Your task to perform on an android device: check battery use Image 0: 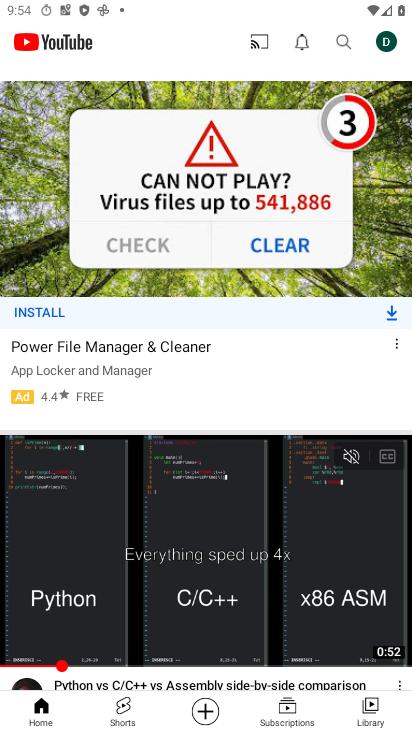
Step 0: press home button
Your task to perform on an android device: check battery use Image 1: 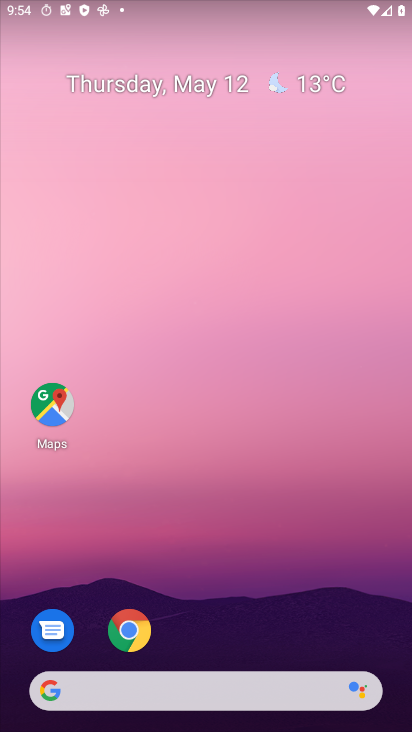
Step 1: drag from (227, 685) to (288, 47)
Your task to perform on an android device: check battery use Image 2: 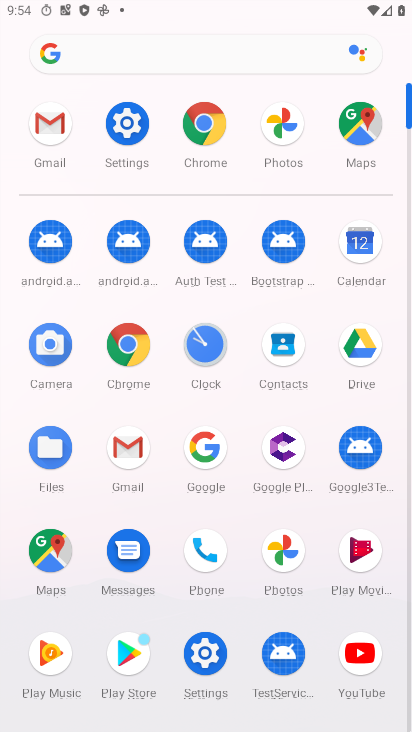
Step 2: click (216, 669)
Your task to perform on an android device: check battery use Image 3: 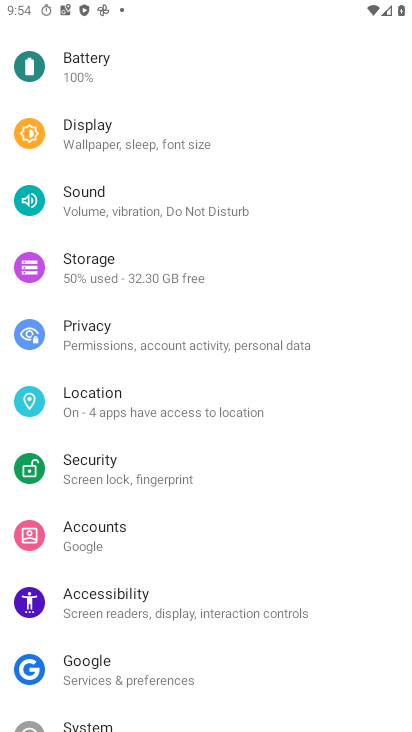
Step 3: click (87, 64)
Your task to perform on an android device: check battery use Image 4: 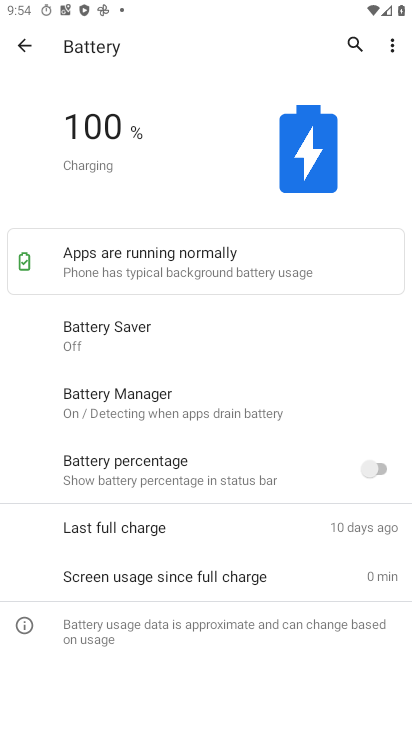
Step 4: click (398, 35)
Your task to perform on an android device: check battery use Image 5: 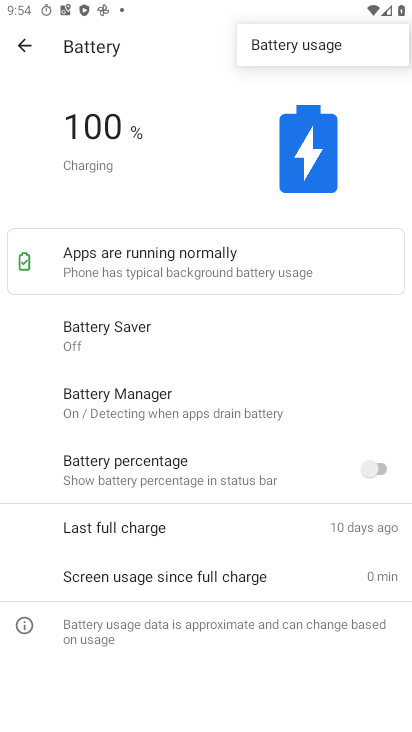
Step 5: click (332, 48)
Your task to perform on an android device: check battery use Image 6: 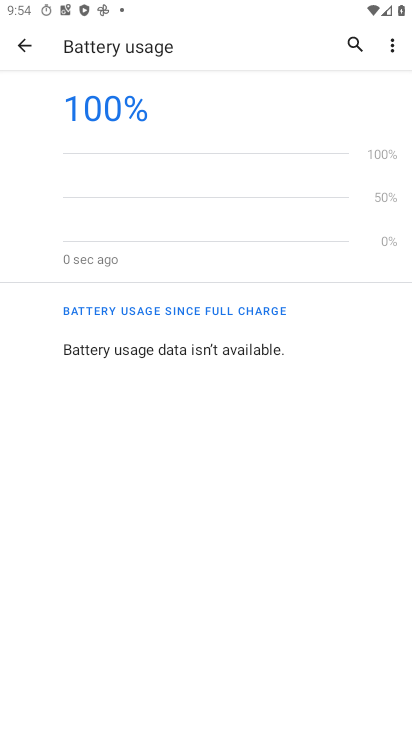
Step 6: task complete